Your task to perform on an android device: delete browsing data in the chrome app Image 0: 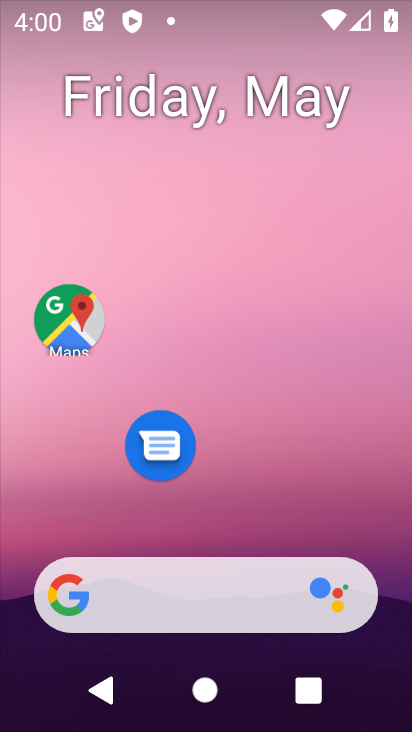
Step 0: drag from (231, 462) to (284, 10)
Your task to perform on an android device: delete browsing data in the chrome app Image 1: 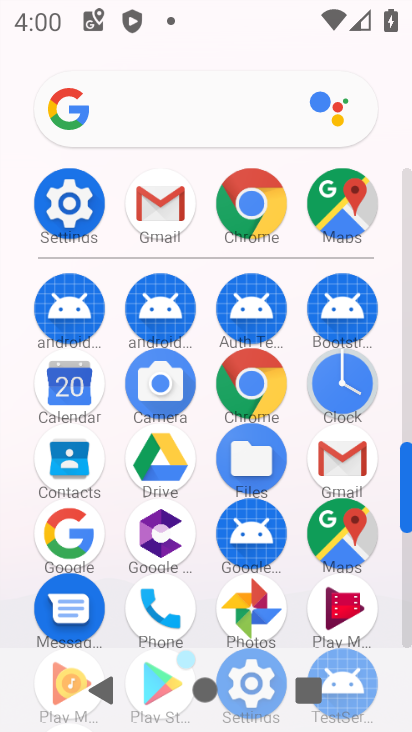
Step 1: click (248, 388)
Your task to perform on an android device: delete browsing data in the chrome app Image 2: 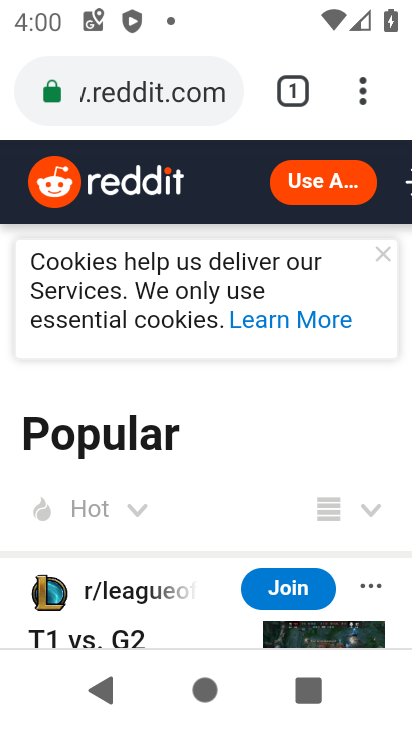
Step 2: click (366, 88)
Your task to perform on an android device: delete browsing data in the chrome app Image 3: 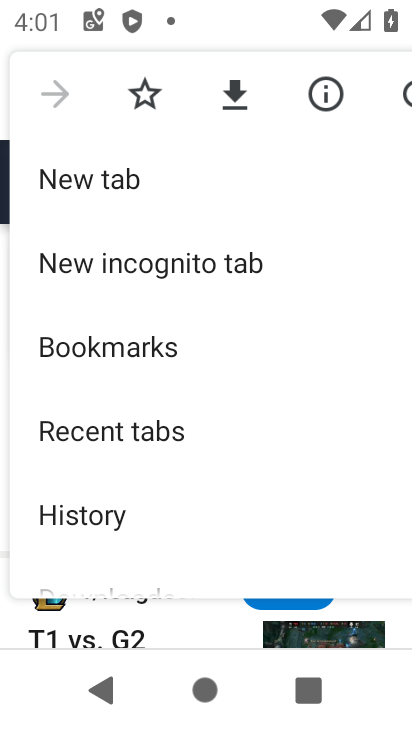
Step 3: click (97, 518)
Your task to perform on an android device: delete browsing data in the chrome app Image 4: 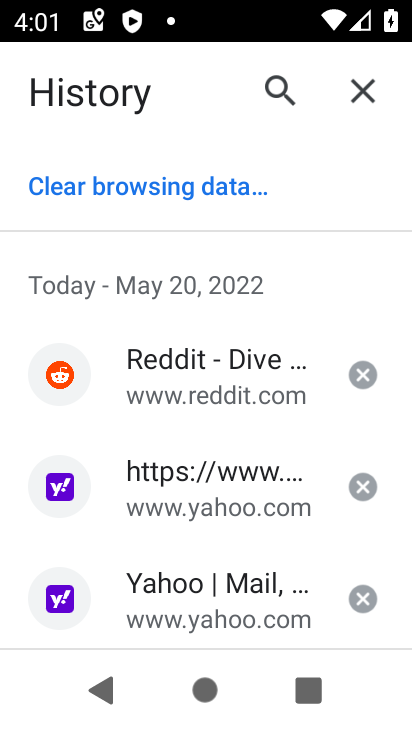
Step 4: click (150, 188)
Your task to perform on an android device: delete browsing data in the chrome app Image 5: 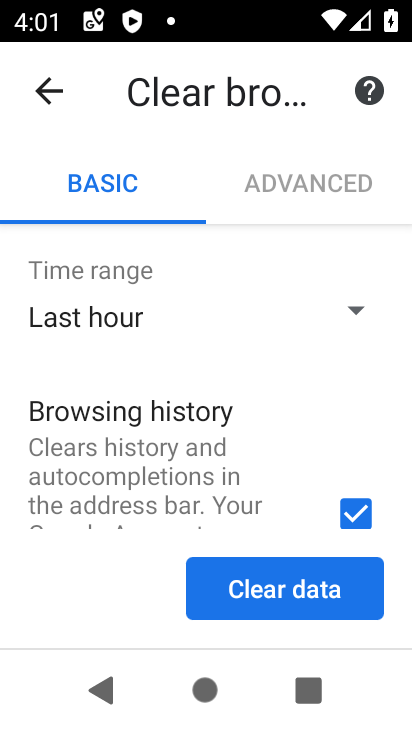
Step 5: drag from (180, 480) to (210, 136)
Your task to perform on an android device: delete browsing data in the chrome app Image 6: 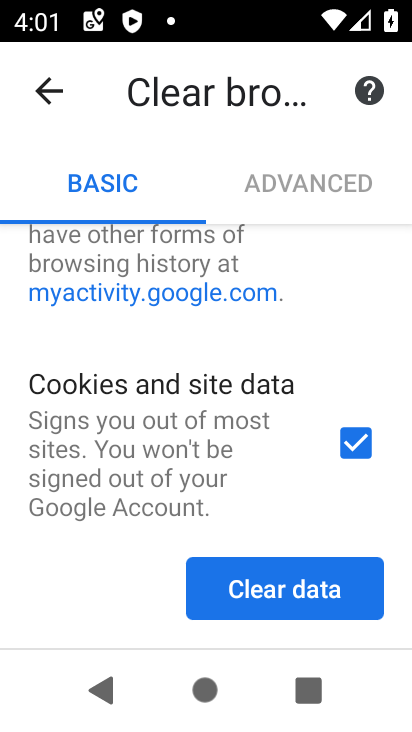
Step 6: drag from (252, 463) to (312, 183)
Your task to perform on an android device: delete browsing data in the chrome app Image 7: 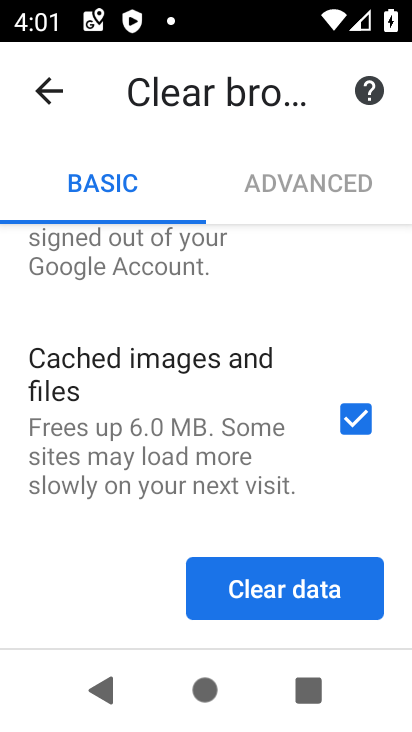
Step 7: click (263, 590)
Your task to perform on an android device: delete browsing data in the chrome app Image 8: 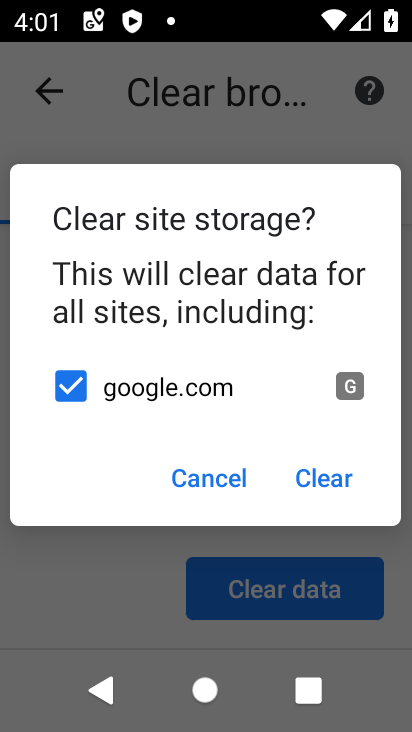
Step 8: click (315, 471)
Your task to perform on an android device: delete browsing data in the chrome app Image 9: 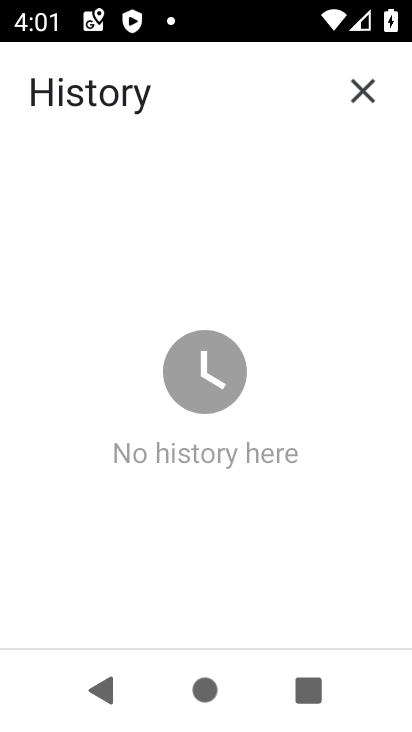
Step 9: task complete